Your task to perform on an android device: turn off location history Image 0: 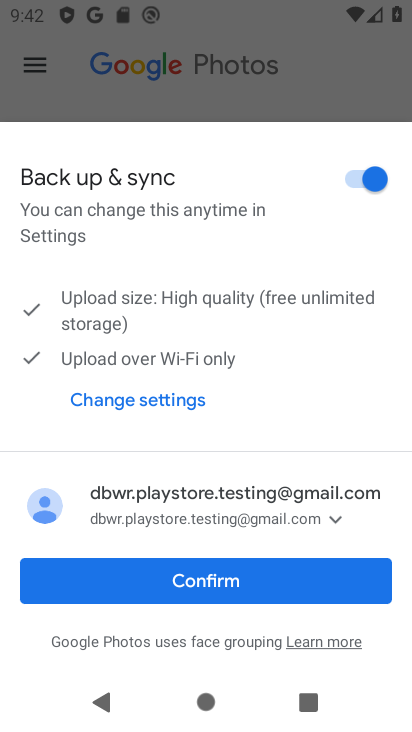
Step 0: press home button
Your task to perform on an android device: turn off location history Image 1: 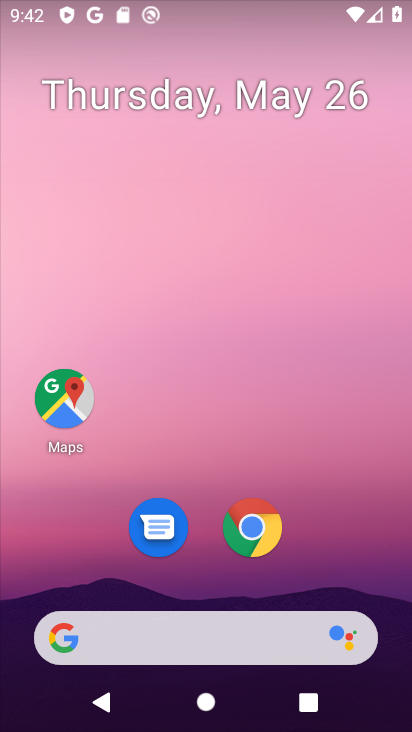
Step 1: drag from (346, 572) to (363, 20)
Your task to perform on an android device: turn off location history Image 2: 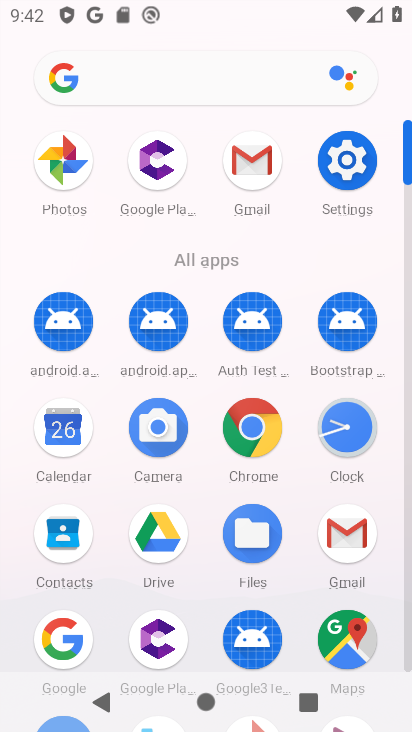
Step 2: click (361, 169)
Your task to perform on an android device: turn off location history Image 3: 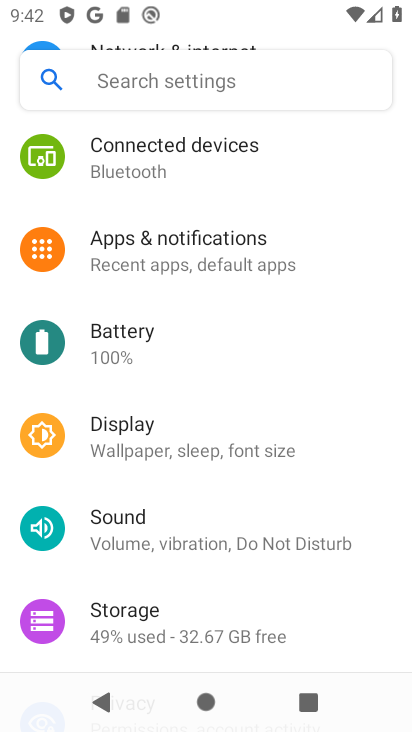
Step 3: drag from (241, 527) to (235, 270)
Your task to perform on an android device: turn off location history Image 4: 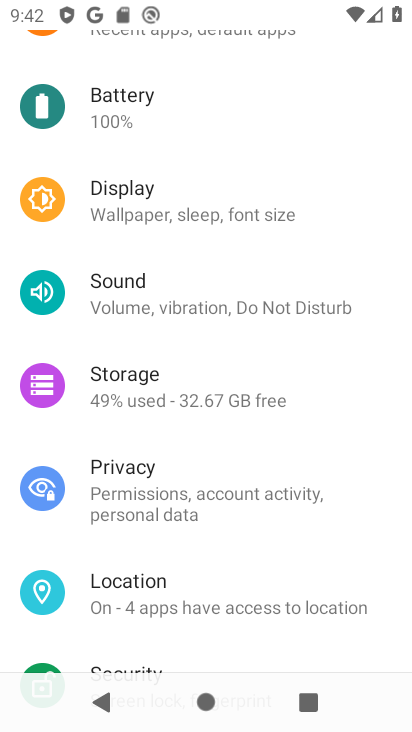
Step 4: click (207, 576)
Your task to perform on an android device: turn off location history Image 5: 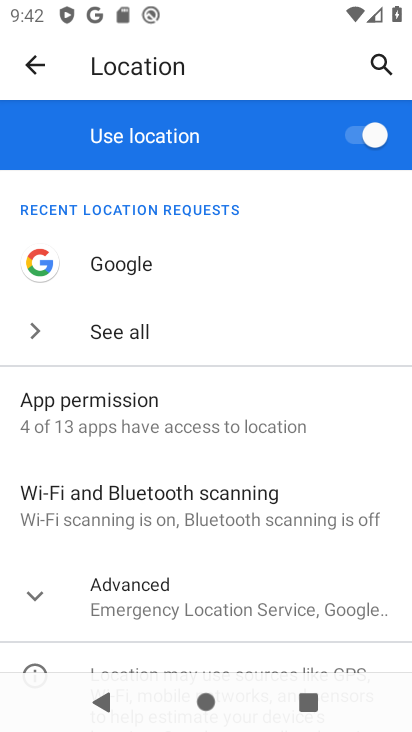
Step 5: click (183, 592)
Your task to perform on an android device: turn off location history Image 6: 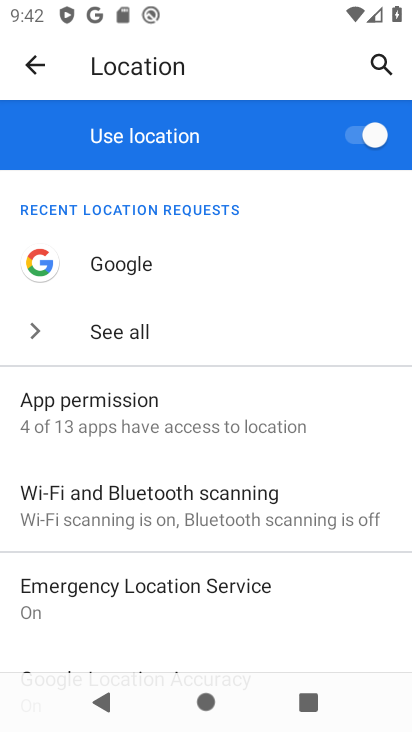
Step 6: drag from (215, 614) to (215, 346)
Your task to perform on an android device: turn off location history Image 7: 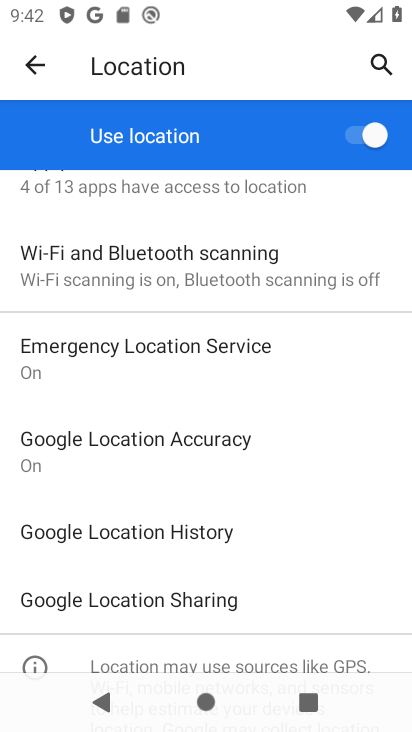
Step 7: click (215, 530)
Your task to perform on an android device: turn off location history Image 8: 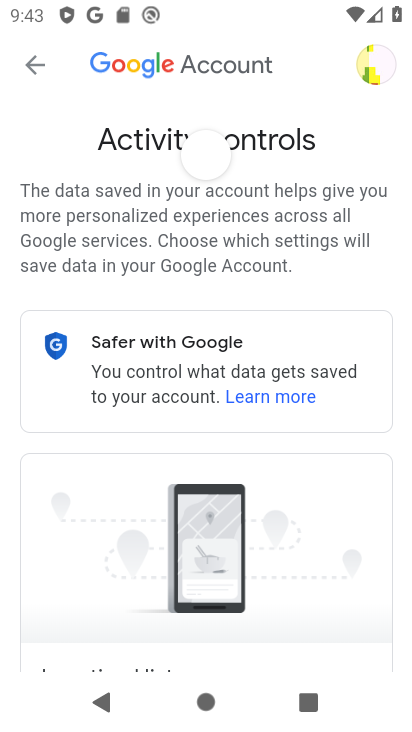
Step 8: task complete